Your task to perform on an android device: allow cookies in the chrome app Image 0: 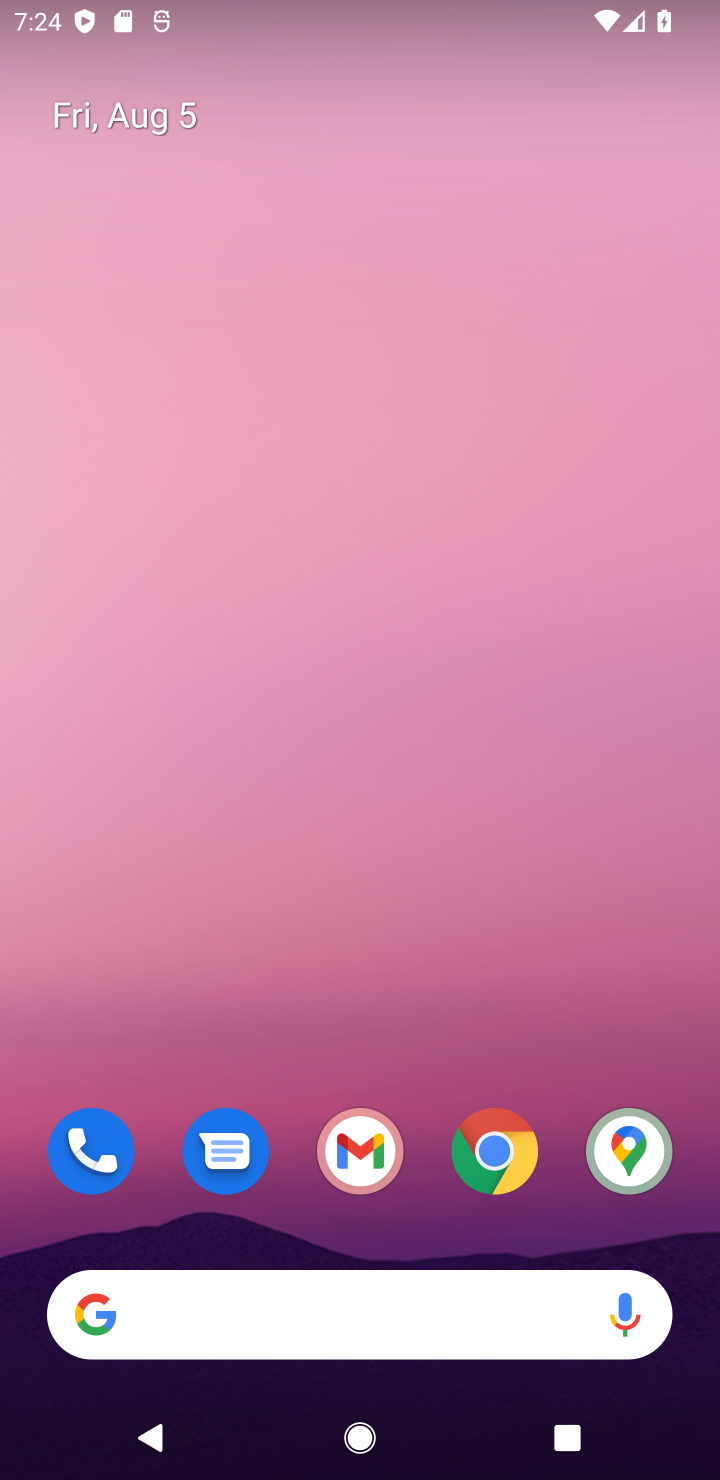
Step 0: drag from (312, 1270) to (327, 240)
Your task to perform on an android device: allow cookies in the chrome app Image 1: 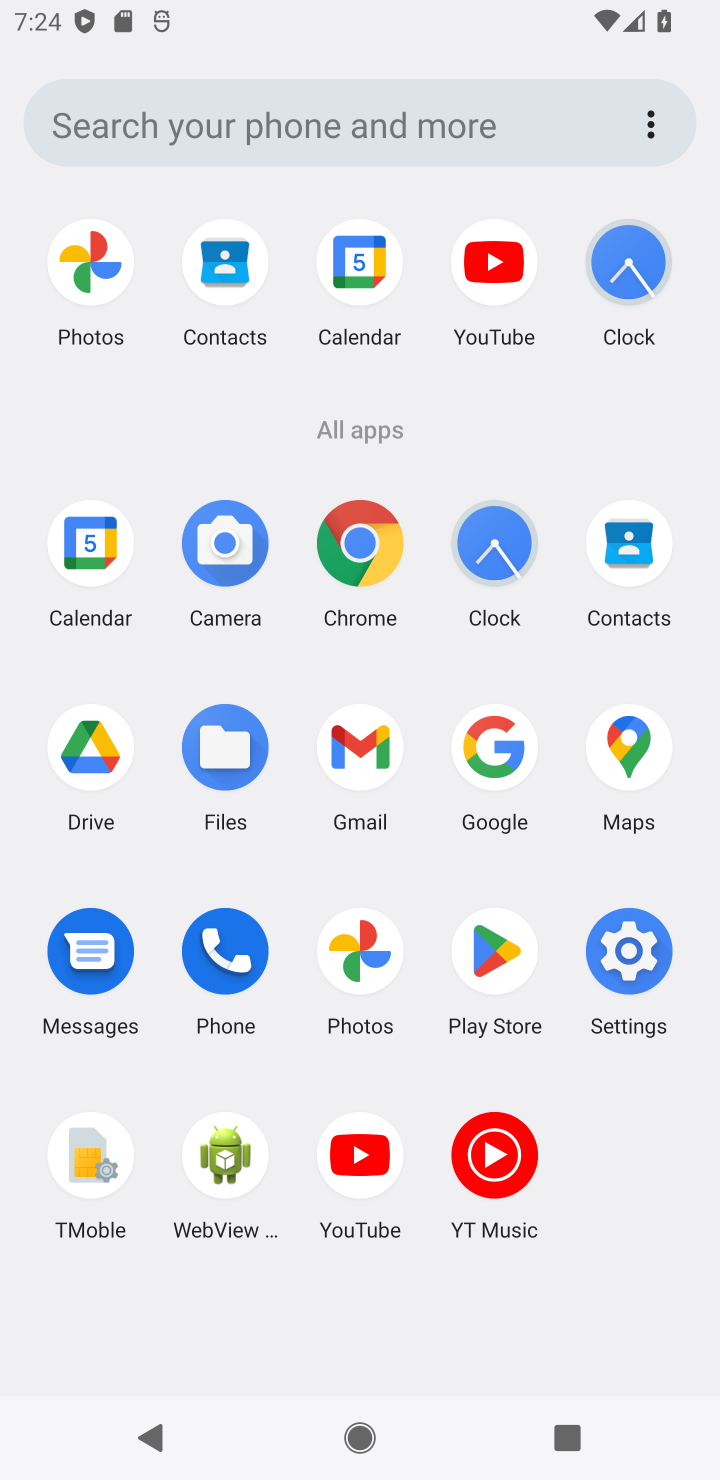
Step 1: click (366, 571)
Your task to perform on an android device: allow cookies in the chrome app Image 2: 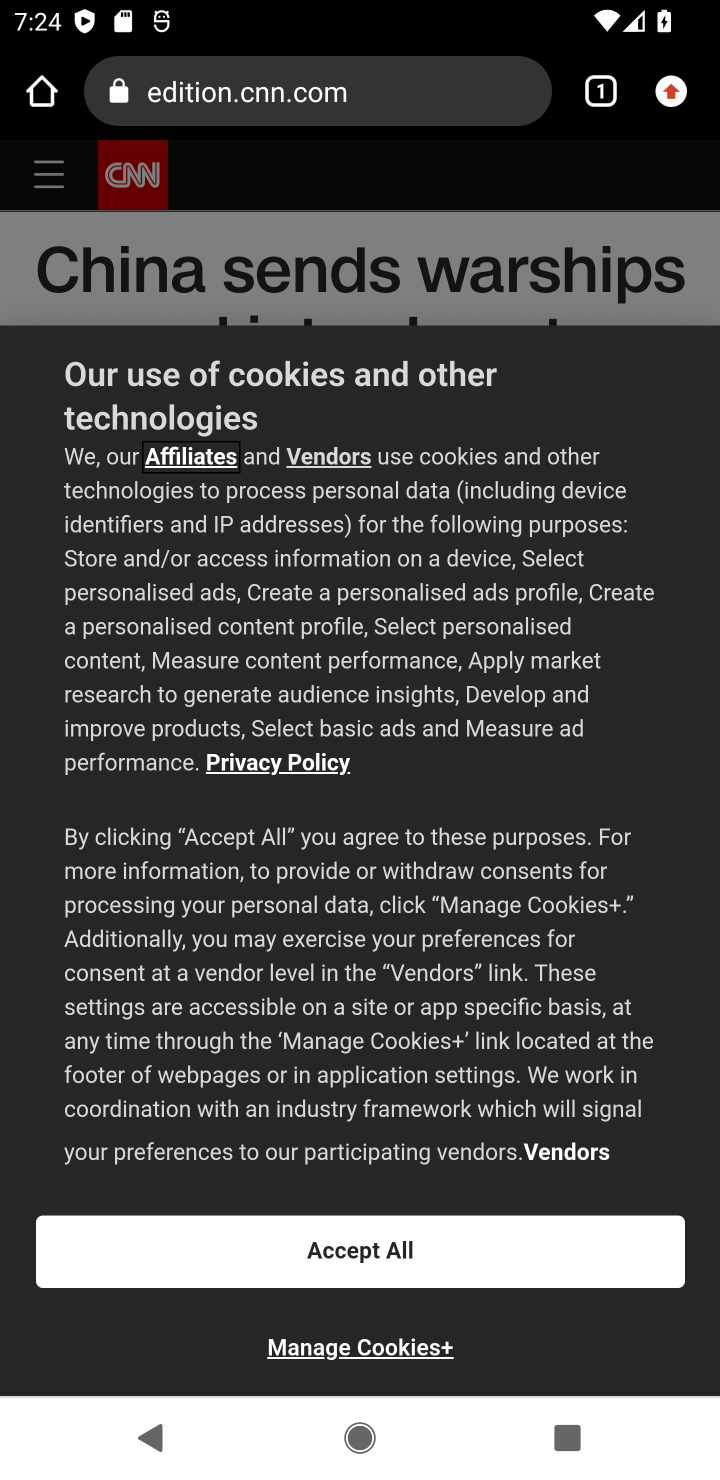
Step 2: drag from (683, 89) to (381, 1269)
Your task to perform on an android device: allow cookies in the chrome app Image 3: 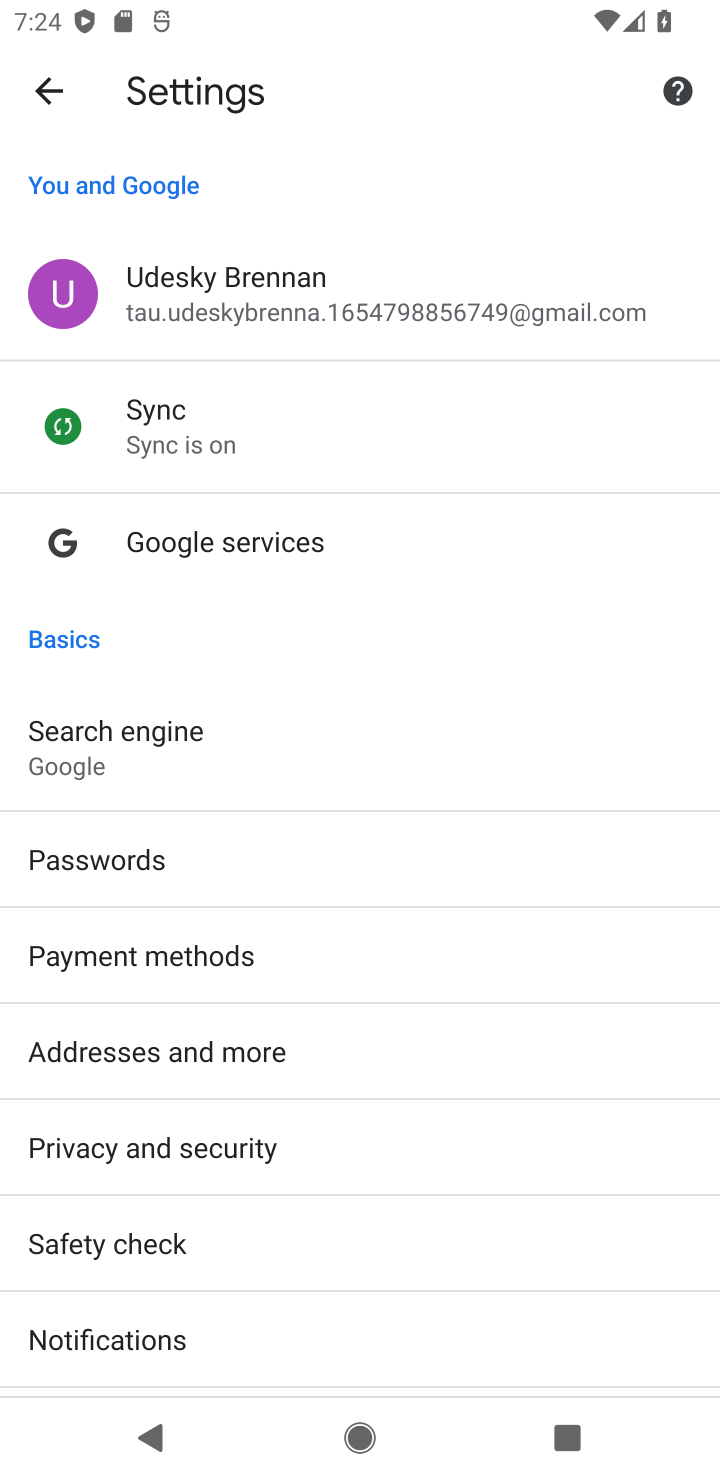
Step 3: drag from (208, 1227) to (258, 302)
Your task to perform on an android device: allow cookies in the chrome app Image 4: 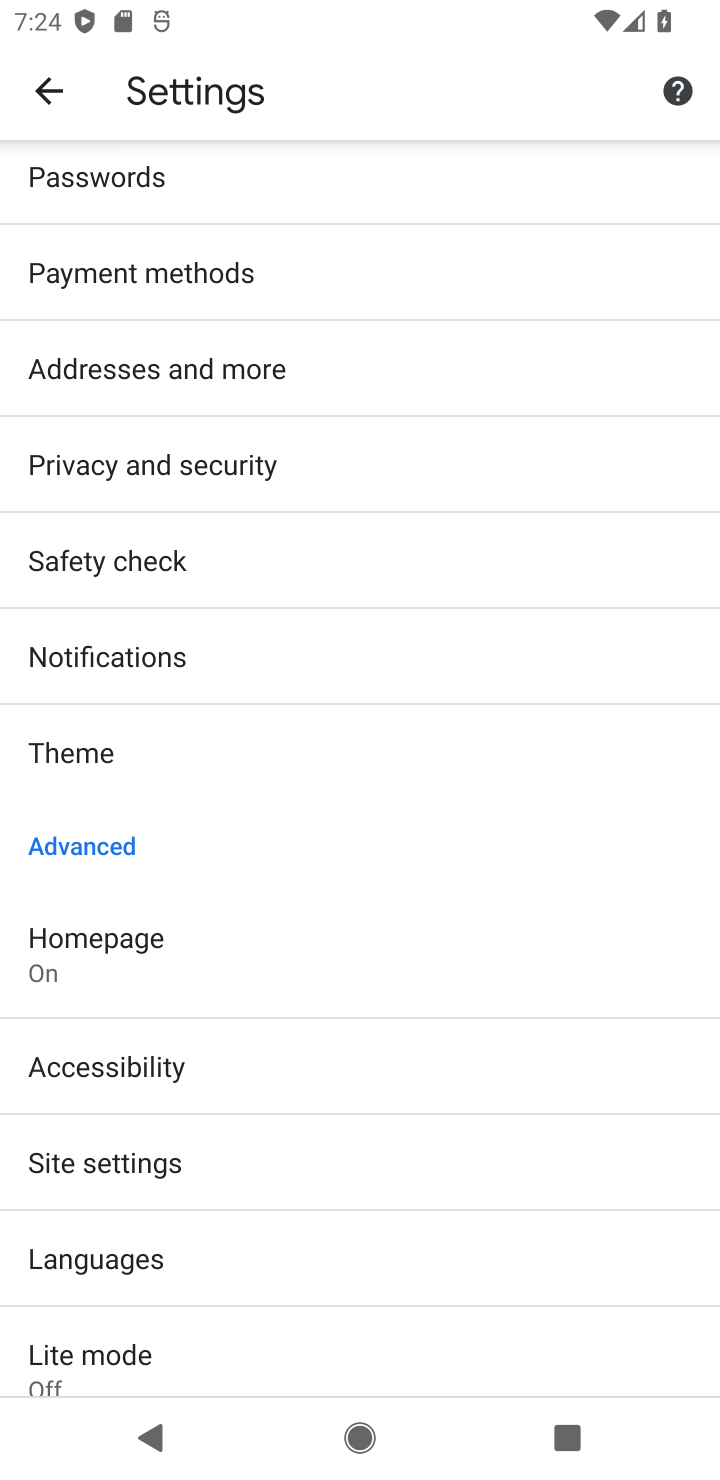
Step 4: click (153, 1155)
Your task to perform on an android device: allow cookies in the chrome app Image 5: 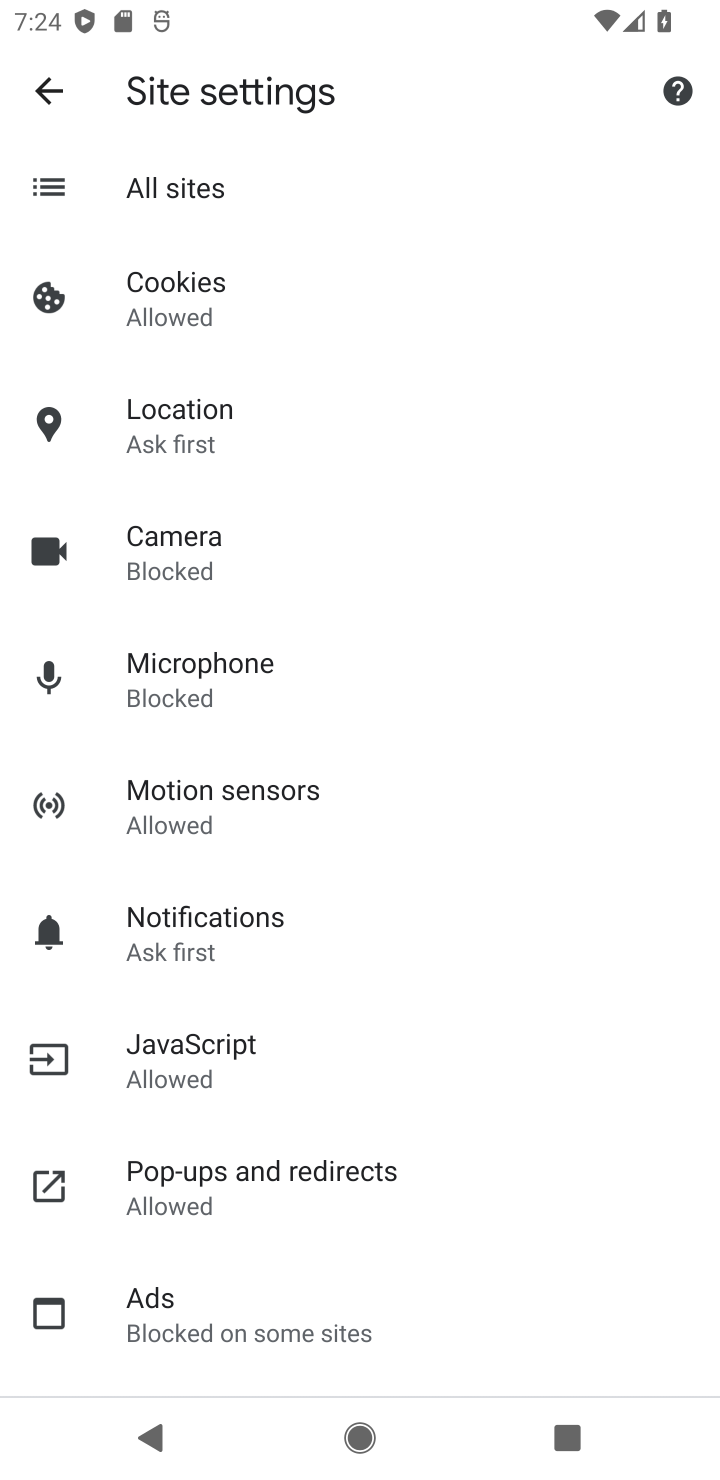
Step 5: click (215, 286)
Your task to perform on an android device: allow cookies in the chrome app Image 6: 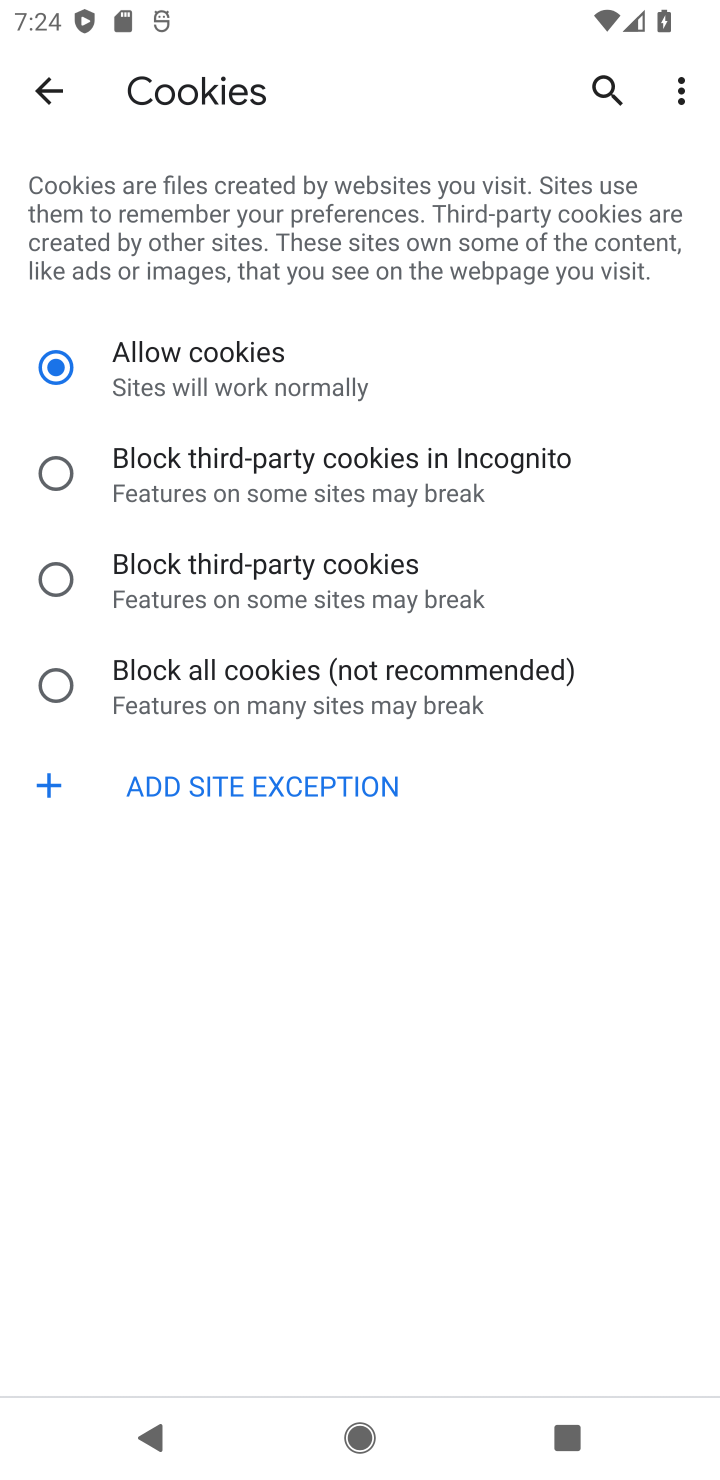
Step 6: click (61, 353)
Your task to perform on an android device: allow cookies in the chrome app Image 7: 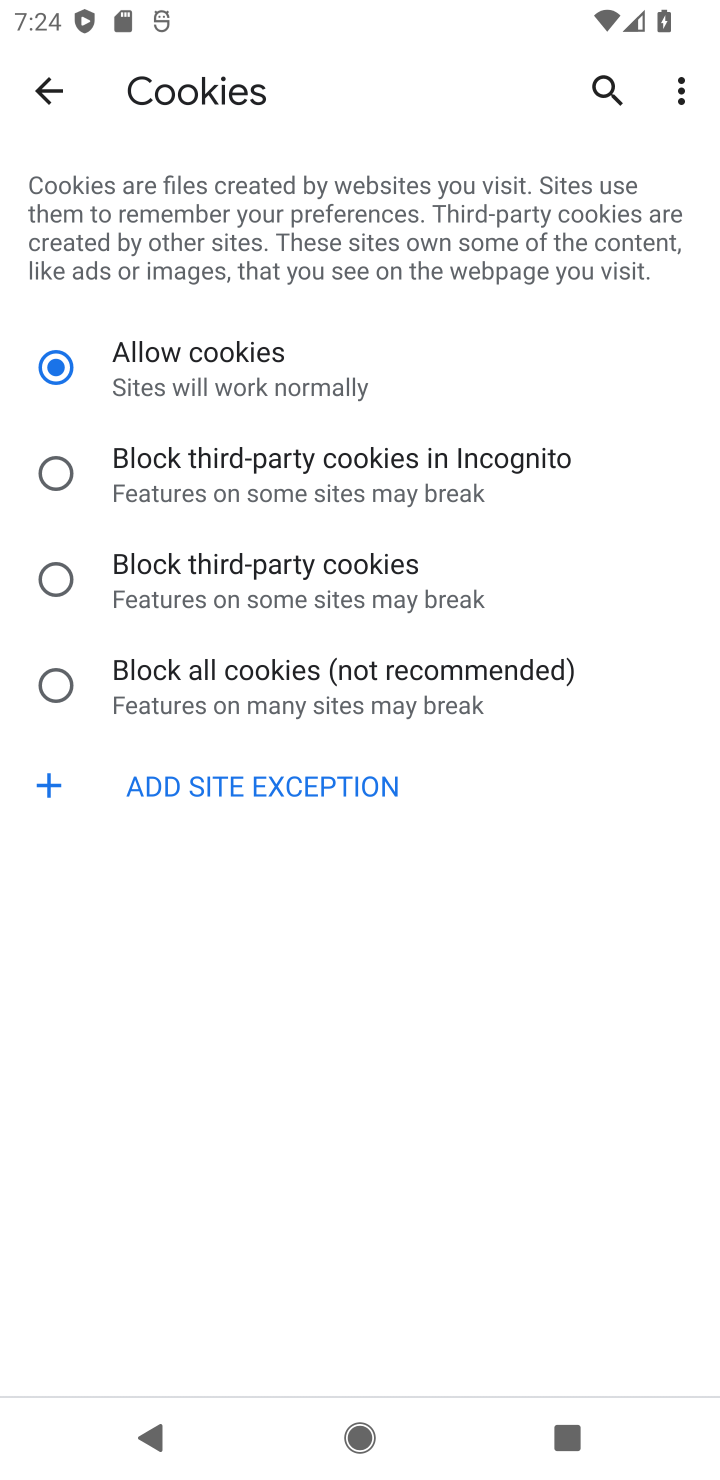
Step 7: task complete